Your task to perform on an android device: Open Google Maps and go to "Timeline" Image 0: 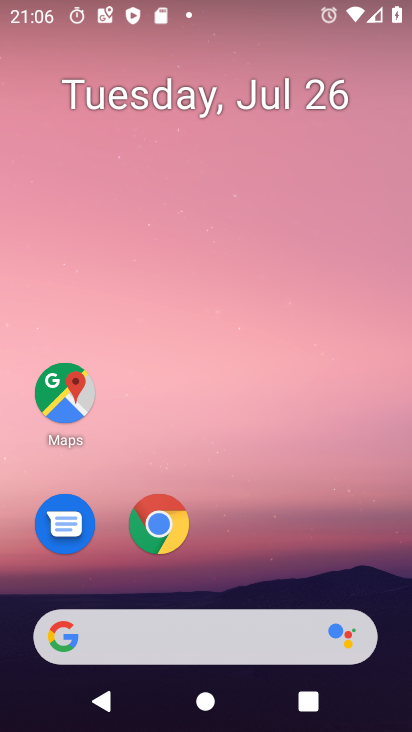
Step 0: drag from (328, 561) to (374, 65)
Your task to perform on an android device: Open Google Maps and go to "Timeline" Image 1: 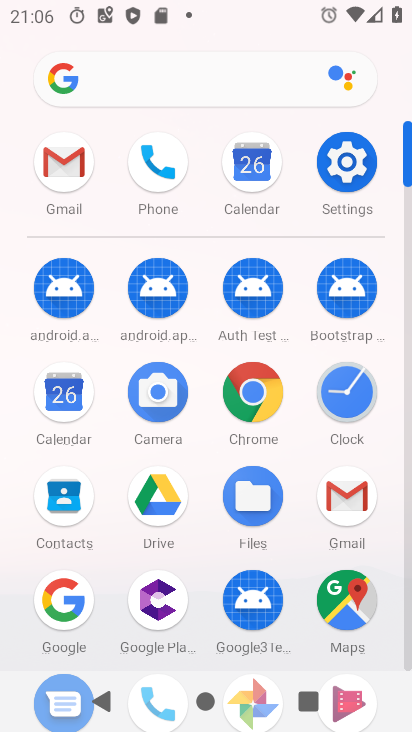
Step 1: click (353, 607)
Your task to perform on an android device: Open Google Maps and go to "Timeline" Image 2: 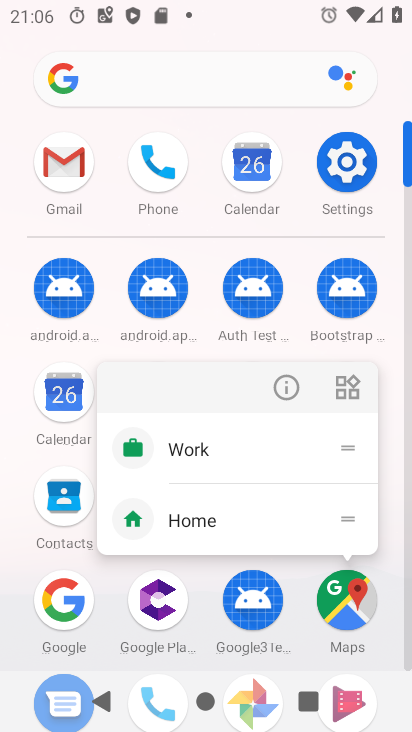
Step 2: click (353, 609)
Your task to perform on an android device: Open Google Maps and go to "Timeline" Image 3: 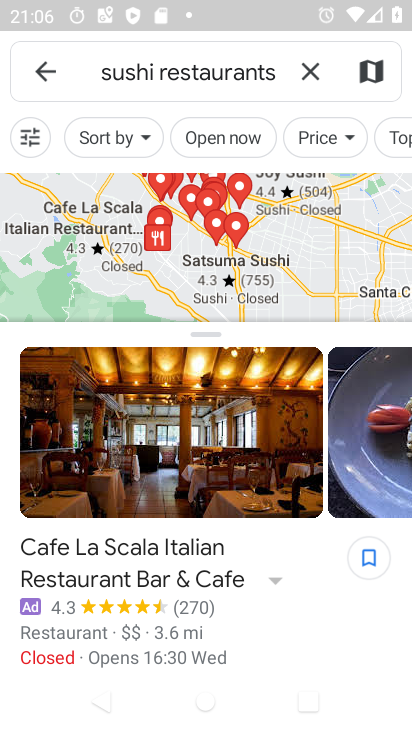
Step 3: click (36, 59)
Your task to perform on an android device: Open Google Maps and go to "Timeline" Image 4: 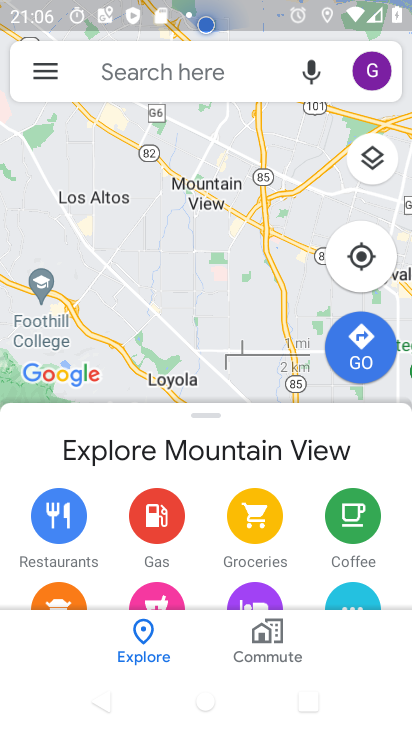
Step 4: click (36, 61)
Your task to perform on an android device: Open Google Maps and go to "Timeline" Image 5: 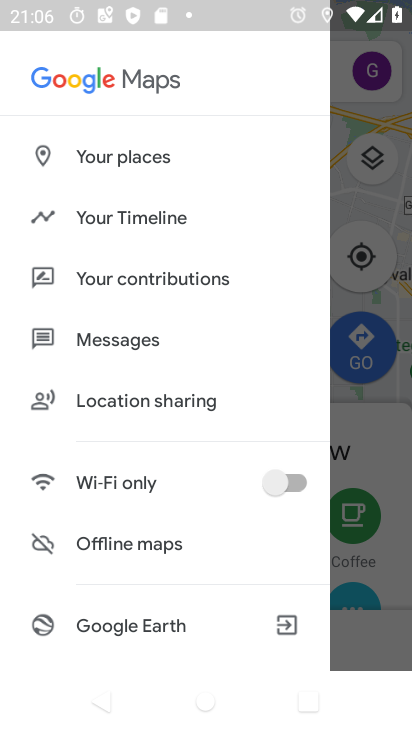
Step 5: click (138, 206)
Your task to perform on an android device: Open Google Maps and go to "Timeline" Image 6: 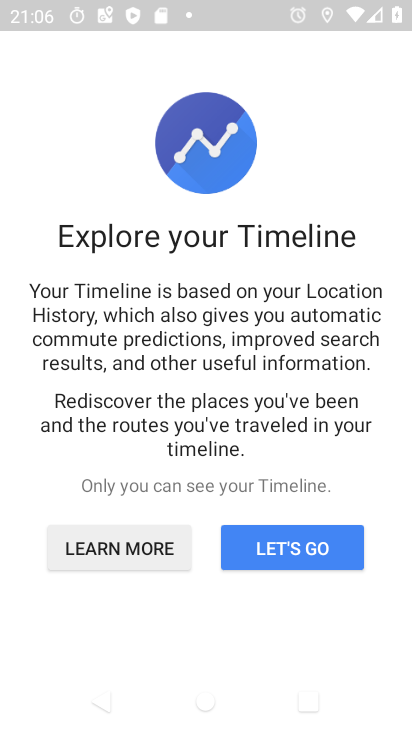
Step 6: click (305, 557)
Your task to perform on an android device: Open Google Maps and go to "Timeline" Image 7: 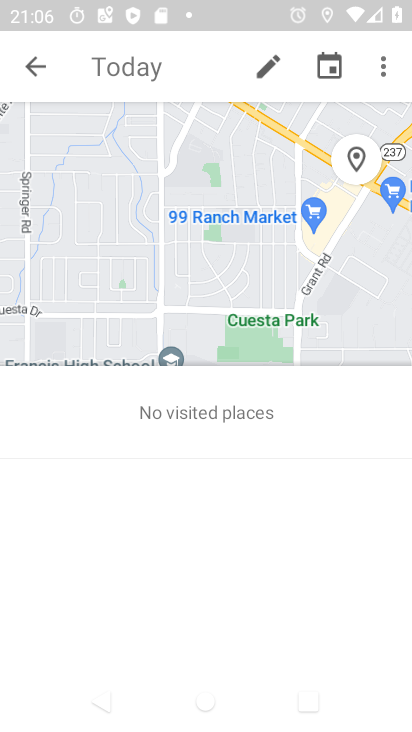
Step 7: click (34, 59)
Your task to perform on an android device: Open Google Maps and go to "Timeline" Image 8: 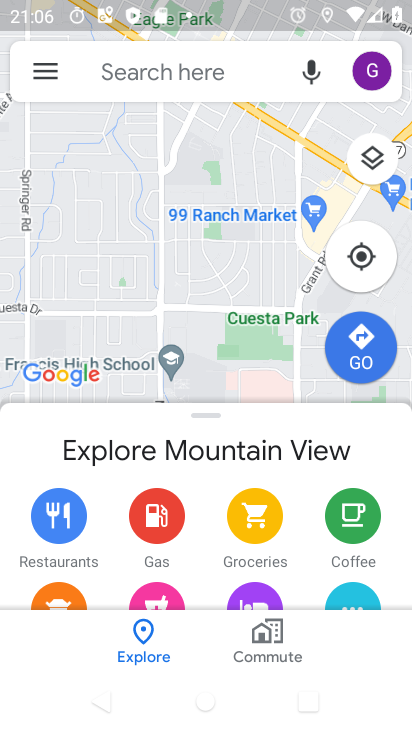
Step 8: click (38, 57)
Your task to perform on an android device: Open Google Maps and go to "Timeline" Image 9: 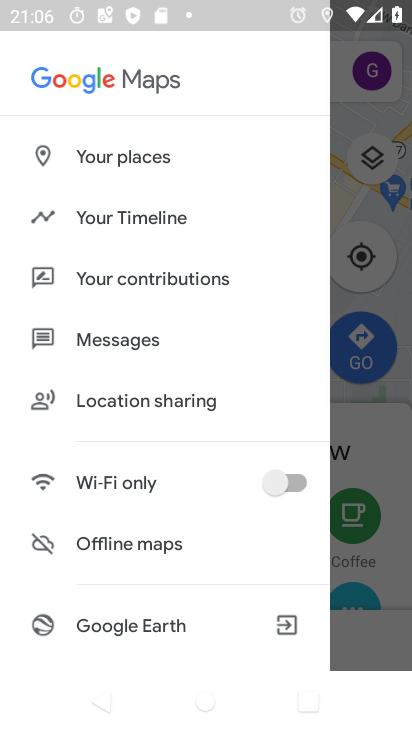
Step 9: click (136, 223)
Your task to perform on an android device: Open Google Maps and go to "Timeline" Image 10: 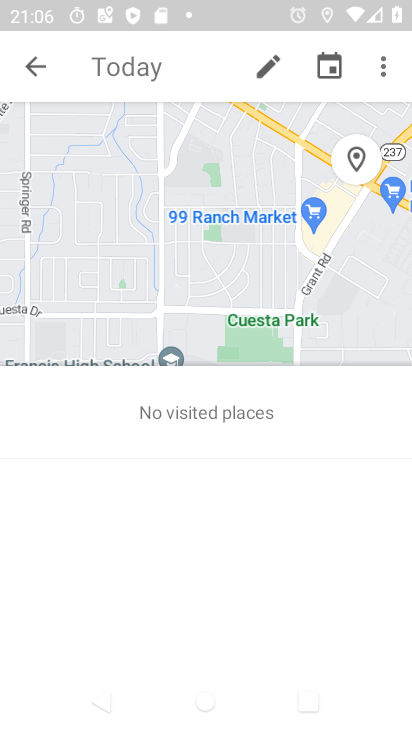
Step 10: task complete